Your task to perform on an android device: Search for rayovac triple a on walmart, select the first entry, add it to the cart, then select checkout. Image 0: 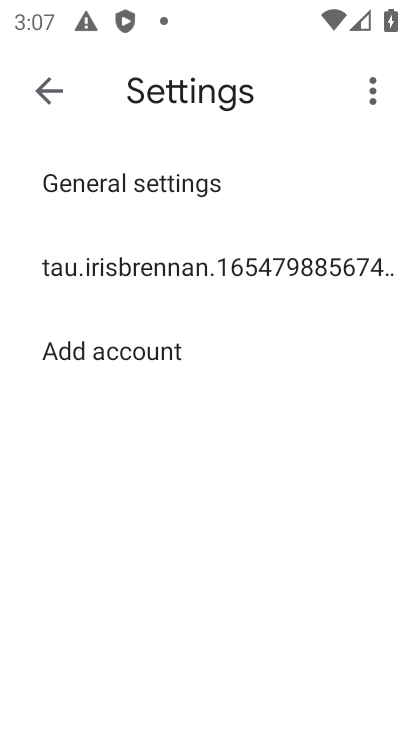
Step 0: press home button
Your task to perform on an android device: Search for rayovac triple a on walmart, select the first entry, add it to the cart, then select checkout. Image 1: 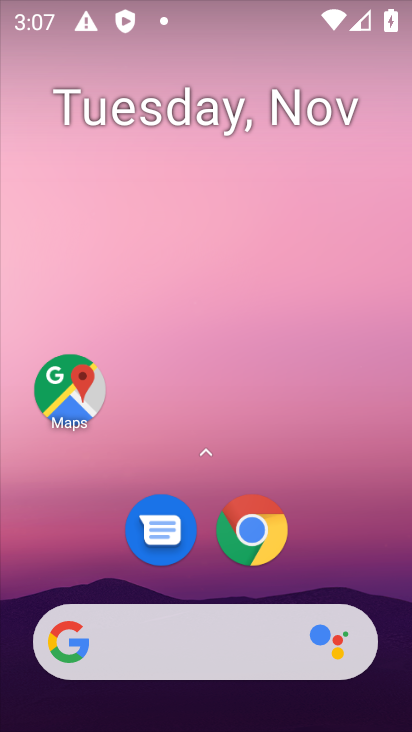
Step 1: drag from (230, 694) to (234, 67)
Your task to perform on an android device: Search for rayovac triple a on walmart, select the first entry, add it to the cart, then select checkout. Image 2: 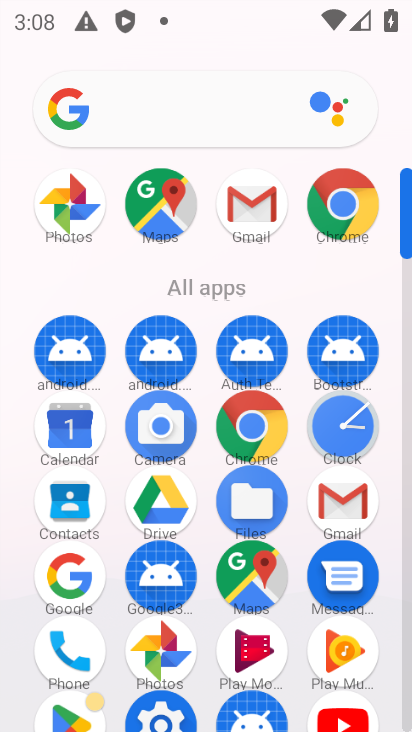
Step 2: click (247, 422)
Your task to perform on an android device: Search for rayovac triple a on walmart, select the first entry, add it to the cart, then select checkout. Image 3: 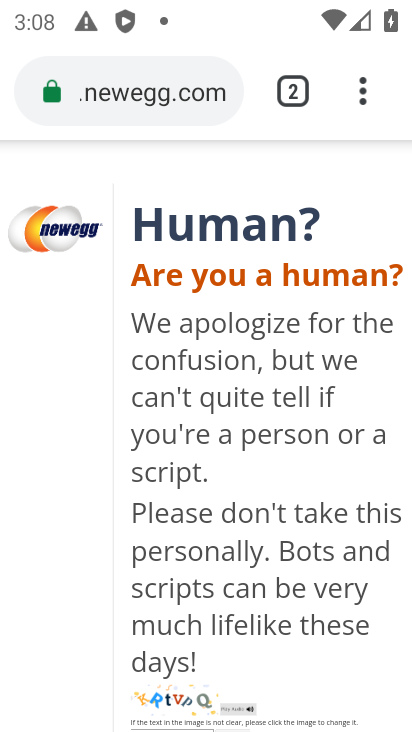
Step 3: click (142, 95)
Your task to perform on an android device: Search for rayovac triple a on walmart, select the first entry, add it to the cart, then select checkout. Image 4: 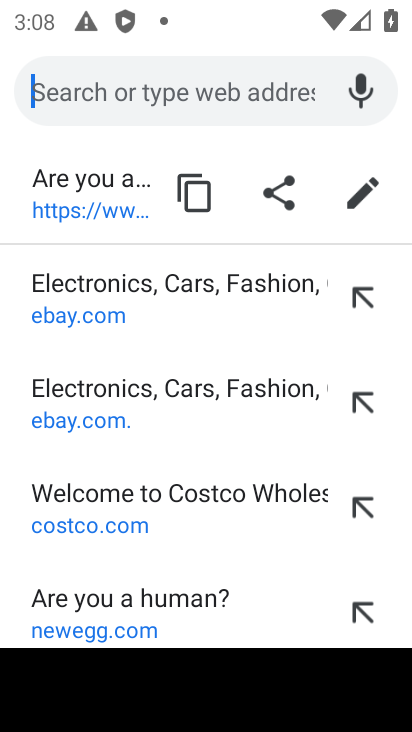
Step 4: type "walmart"
Your task to perform on an android device: Search for rayovac triple a on walmart, select the first entry, add it to the cart, then select checkout. Image 5: 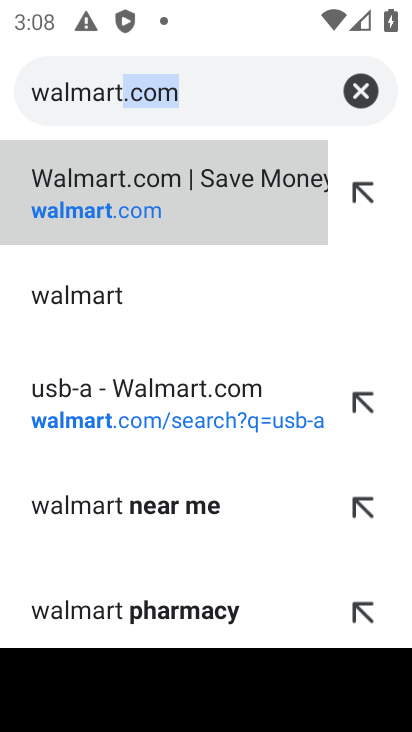
Step 5: click (95, 208)
Your task to perform on an android device: Search for rayovac triple a on walmart, select the first entry, add it to the cart, then select checkout. Image 6: 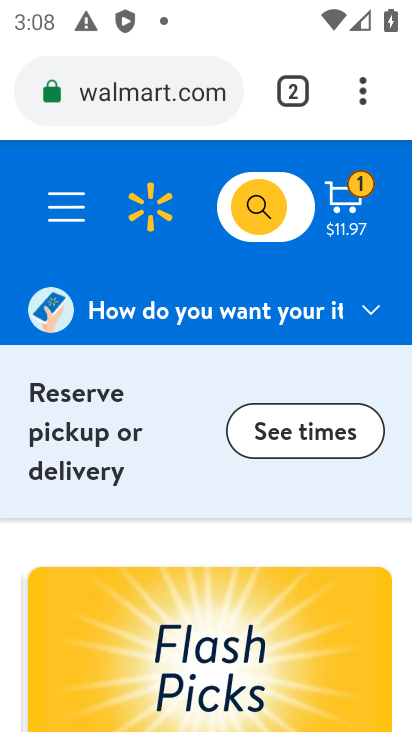
Step 6: click (246, 199)
Your task to perform on an android device: Search for rayovac triple a on walmart, select the first entry, add it to the cart, then select checkout. Image 7: 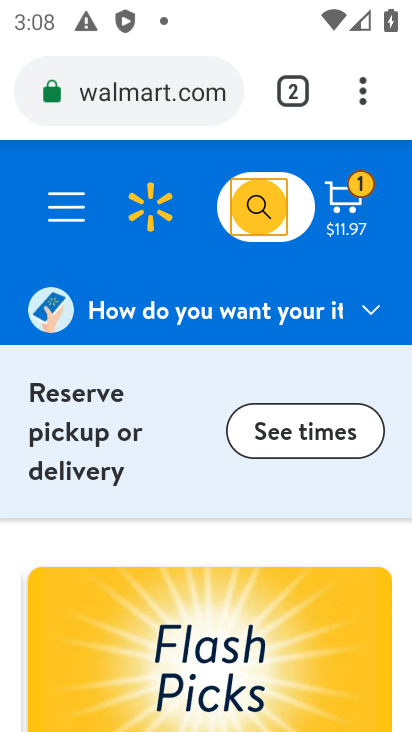
Step 7: click (262, 200)
Your task to perform on an android device: Search for rayovac triple a on walmart, select the first entry, add it to the cart, then select checkout. Image 8: 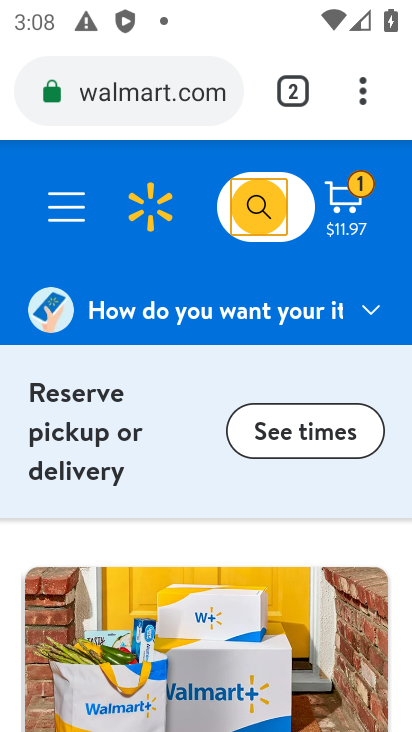
Step 8: click (253, 204)
Your task to perform on an android device: Search for rayovac triple a on walmart, select the first entry, add it to the cart, then select checkout. Image 9: 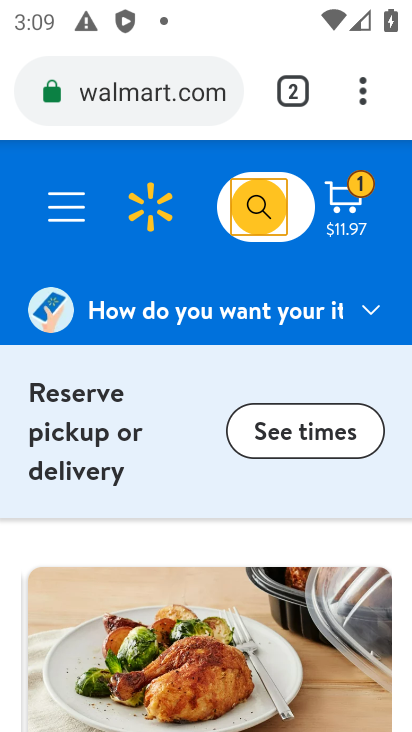
Step 9: click (257, 200)
Your task to perform on an android device: Search for rayovac triple a on walmart, select the first entry, add it to the cart, then select checkout. Image 10: 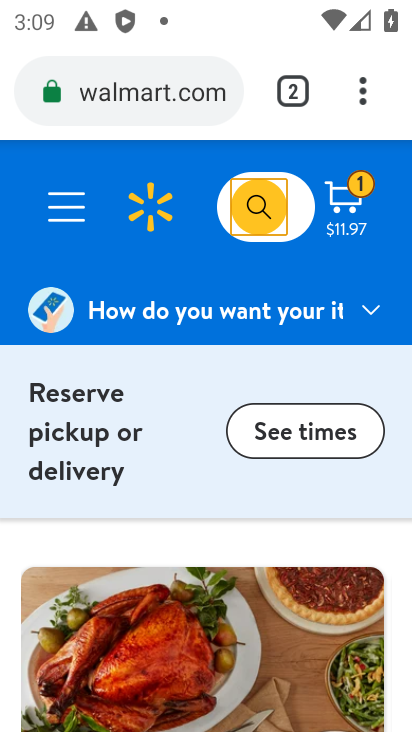
Step 10: click (254, 195)
Your task to perform on an android device: Search for rayovac triple a on walmart, select the first entry, add it to the cart, then select checkout. Image 11: 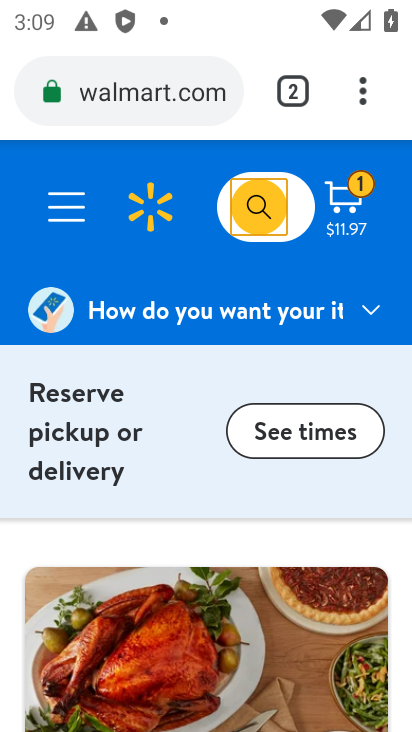
Step 11: click (259, 201)
Your task to perform on an android device: Search for rayovac triple a on walmart, select the first entry, add it to the cart, then select checkout. Image 12: 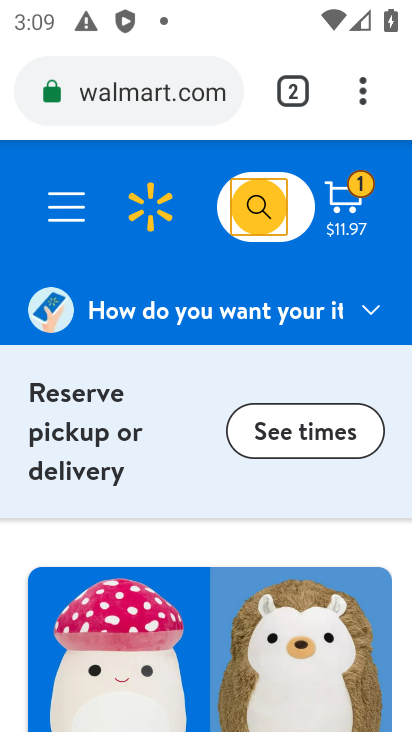
Step 12: click (245, 189)
Your task to perform on an android device: Search for rayovac triple a on walmart, select the first entry, add it to the cart, then select checkout. Image 13: 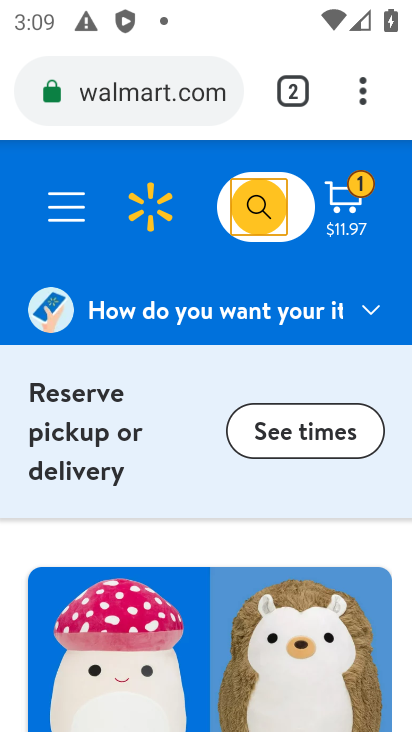
Step 13: click (226, 209)
Your task to perform on an android device: Search for rayovac triple a on walmart, select the first entry, add it to the cart, then select checkout. Image 14: 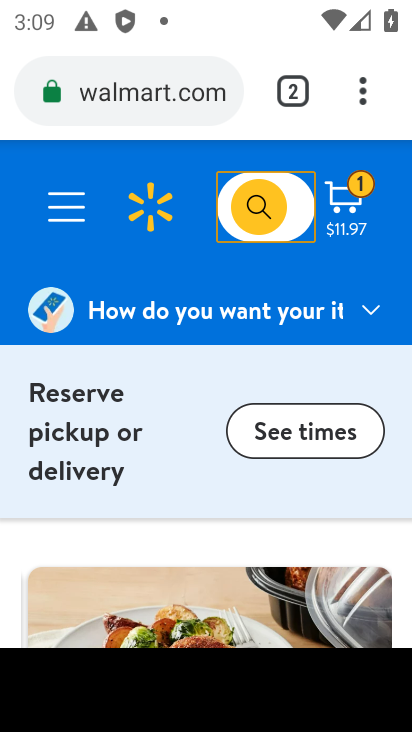
Step 14: click (287, 217)
Your task to perform on an android device: Search for rayovac triple a on walmart, select the first entry, add it to the cart, then select checkout. Image 15: 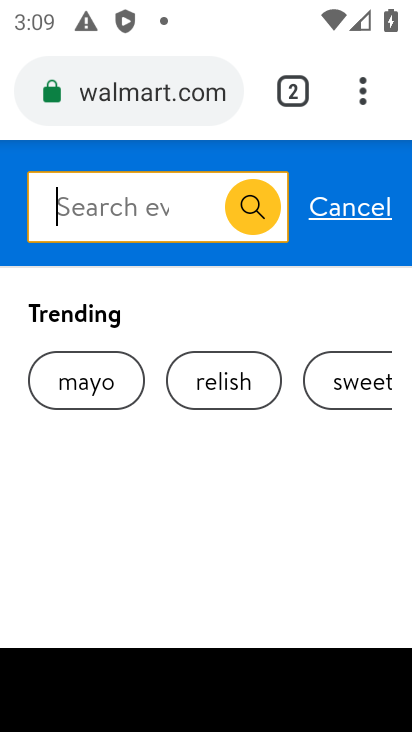
Step 15: type "rayovac triple"
Your task to perform on an android device: Search for rayovac triple a on walmart, select the first entry, add it to the cart, then select checkout. Image 16: 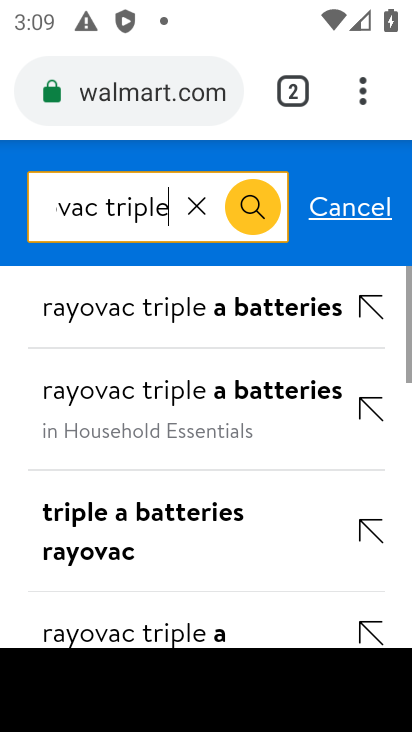
Step 16: click (255, 203)
Your task to perform on an android device: Search for rayovac triple a on walmart, select the first entry, add it to the cart, then select checkout. Image 17: 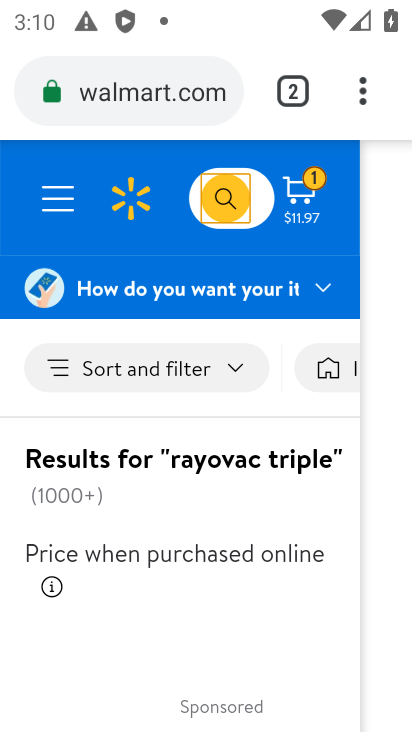
Step 17: drag from (278, 605) to (227, 105)
Your task to perform on an android device: Search for rayovac triple a on walmart, select the first entry, add it to the cart, then select checkout. Image 18: 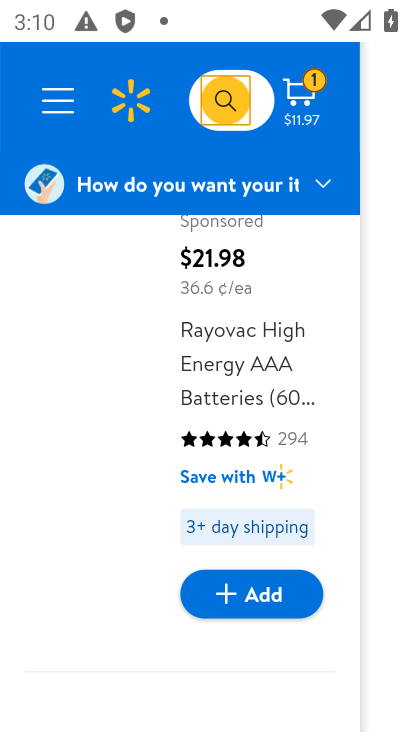
Step 18: click (120, 388)
Your task to perform on an android device: Search for rayovac triple a on walmart, select the first entry, add it to the cart, then select checkout. Image 19: 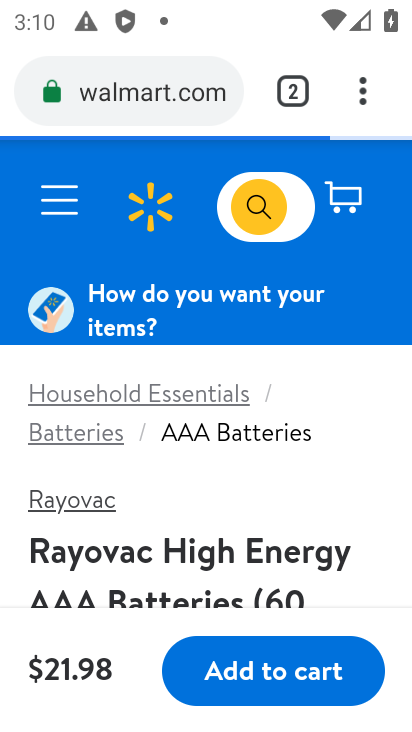
Step 19: click (270, 667)
Your task to perform on an android device: Search for rayovac triple a on walmart, select the first entry, add it to the cart, then select checkout. Image 20: 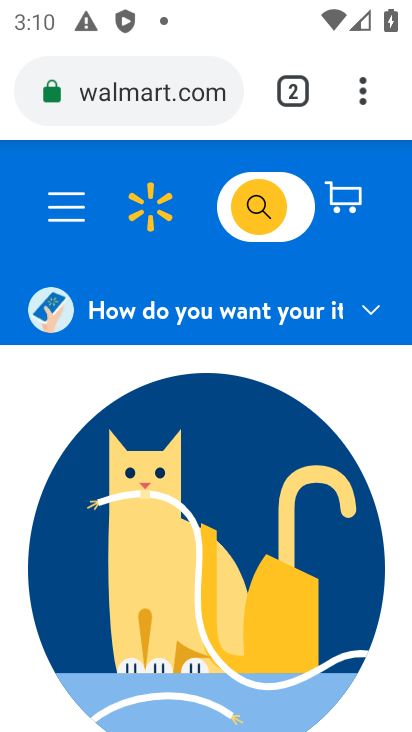
Step 20: task complete